Your task to perform on an android device: Show me recent news Image 0: 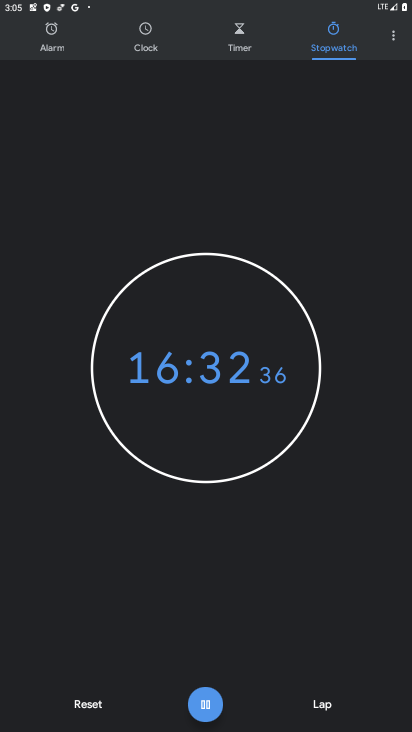
Step 0: press home button
Your task to perform on an android device: Show me recent news Image 1: 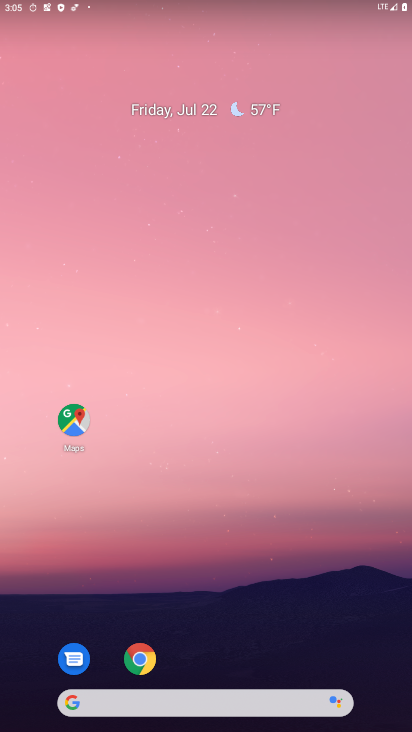
Step 1: click (194, 697)
Your task to perform on an android device: Show me recent news Image 2: 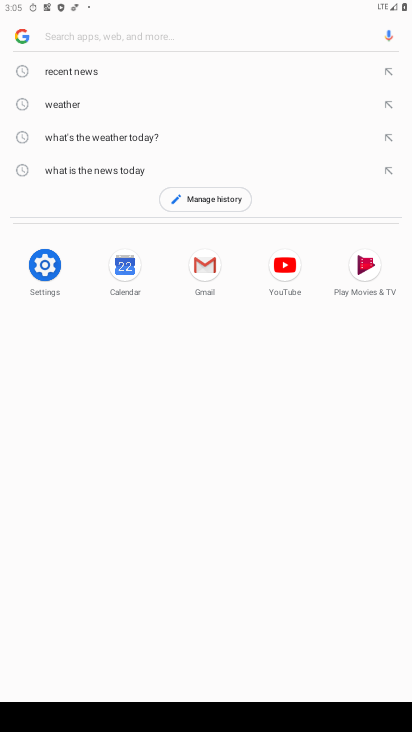
Step 2: type "recent news"
Your task to perform on an android device: Show me recent news Image 3: 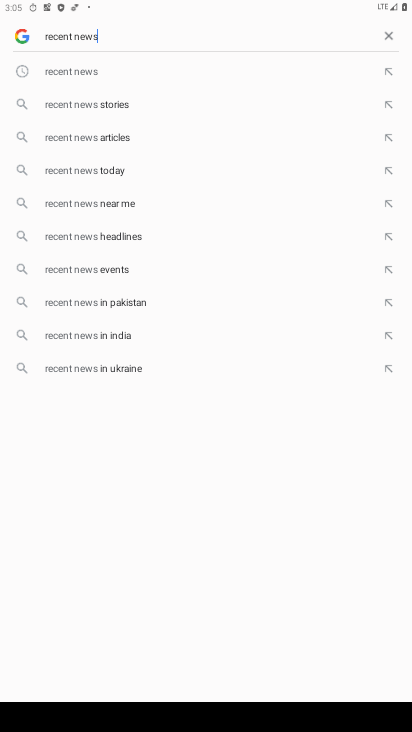
Step 3: click (180, 68)
Your task to perform on an android device: Show me recent news Image 4: 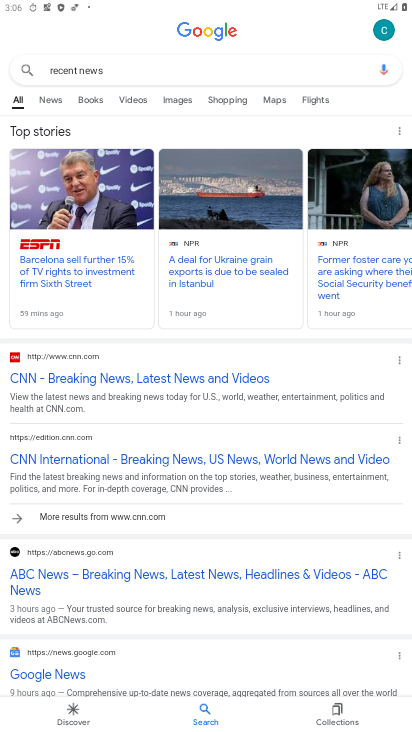
Step 4: click (58, 97)
Your task to perform on an android device: Show me recent news Image 5: 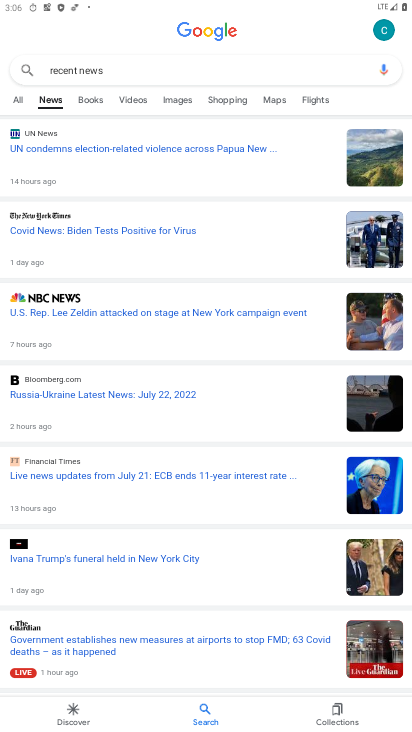
Step 5: task complete